Your task to perform on an android device: Open Google Chrome Image 0: 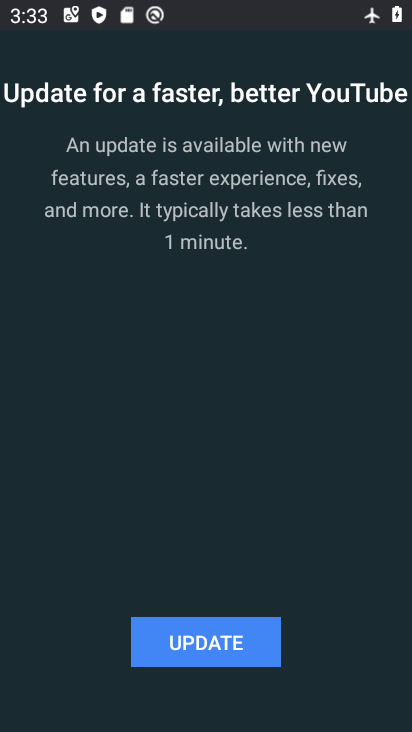
Step 0: press home button
Your task to perform on an android device: Open Google Chrome Image 1: 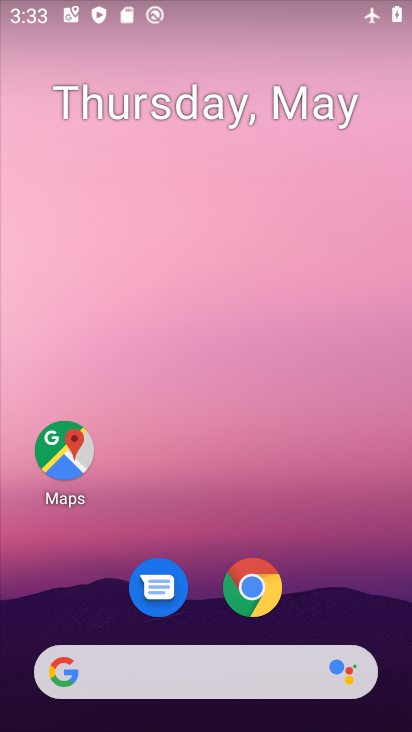
Step 1: drag from (228, 627) to (218, 231)
Your task to perform on an android device: Open Google Chrome Image 2: 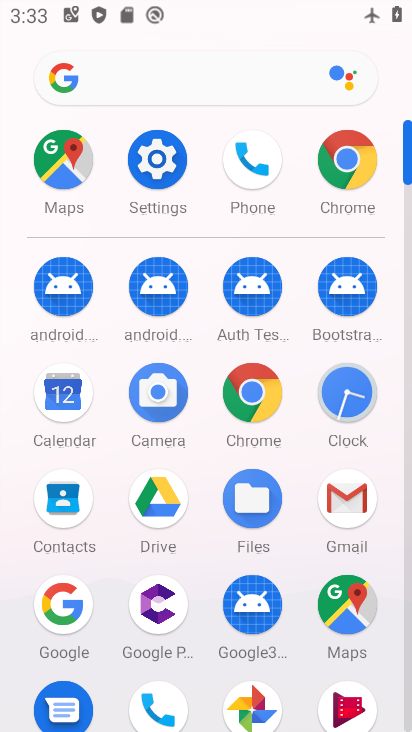
Step 2: click (355, 180)
Your task to perform on an android device: Open Google Chrome Image 3: 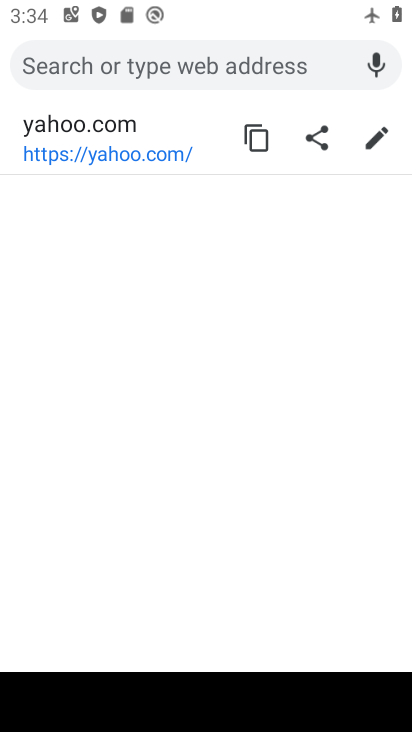
Step 3: task complete